Your task to perform on an android device: What's on my calendar tomorrow? Image 0: 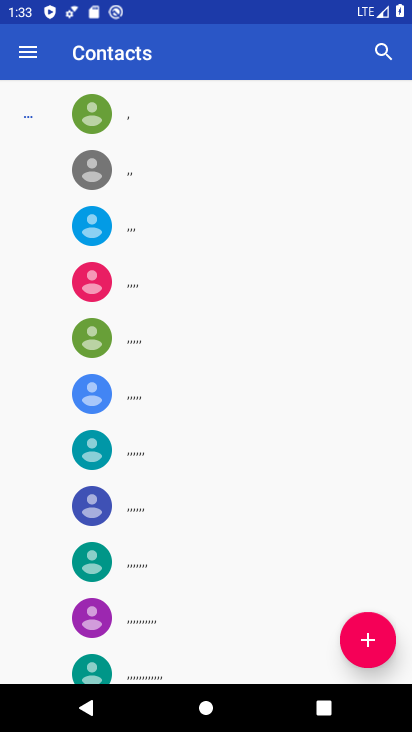
Step 0: press home button
Your task to perform on an android device: What's on my calendar tomorrow? Image 1: 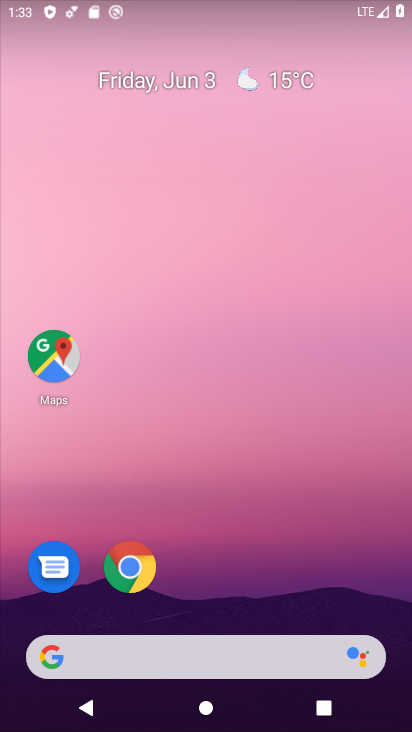
Step 1: click (265, 166)
Your task to perform on an android device: What's on my calendar tomorrow? Image 2: 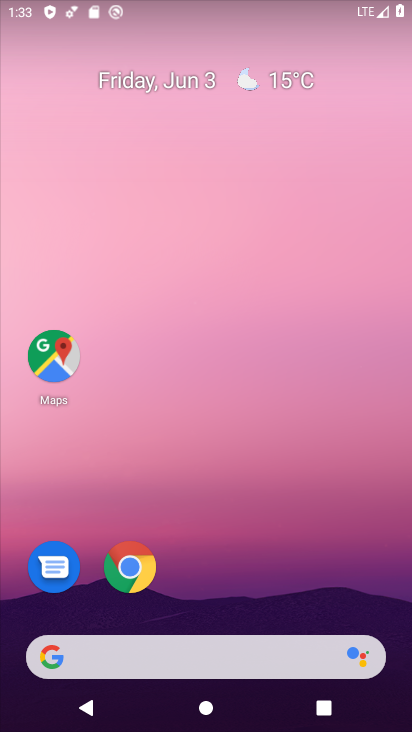
Step 2: drag from (195, 634) to (234, 21)
Your task to perform on an android device: What's on my calendar tomorrow? Image 3: 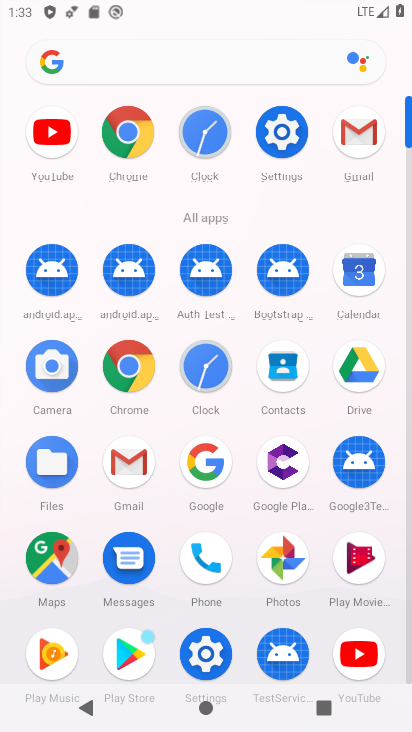
Step 3: click (367, 273)
Your task to perform on an android device: What's on my calendar tomorrow? Image 4: 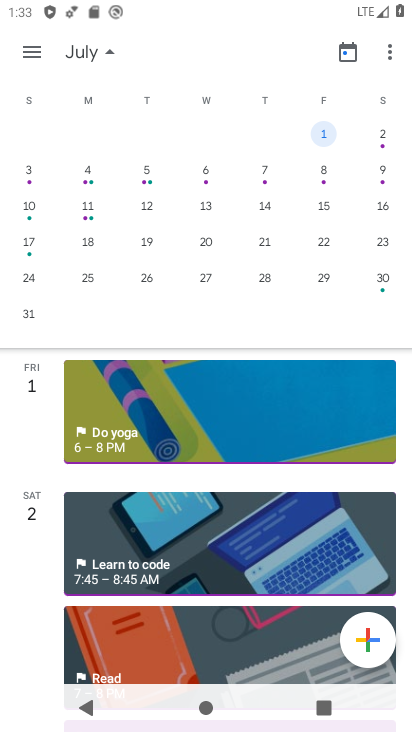
Step 4: click (93, 50)
Your task to perform on an android device: What's on my calendar tomorrow? Image 5: 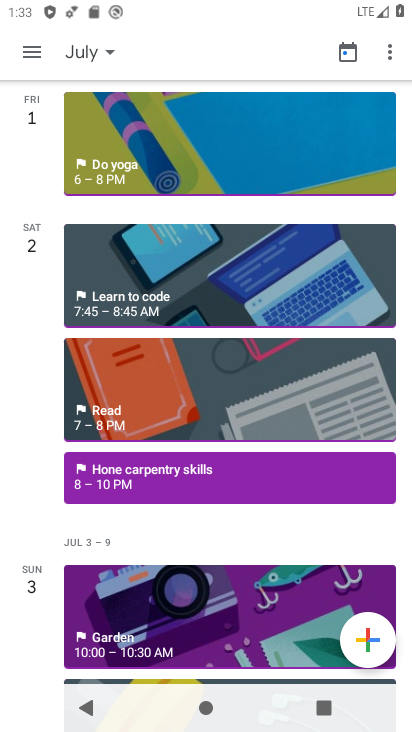
Step 5: click (91, 48)
Your task to perform on an android device: What's on my calendar tomorrow? Image 6: 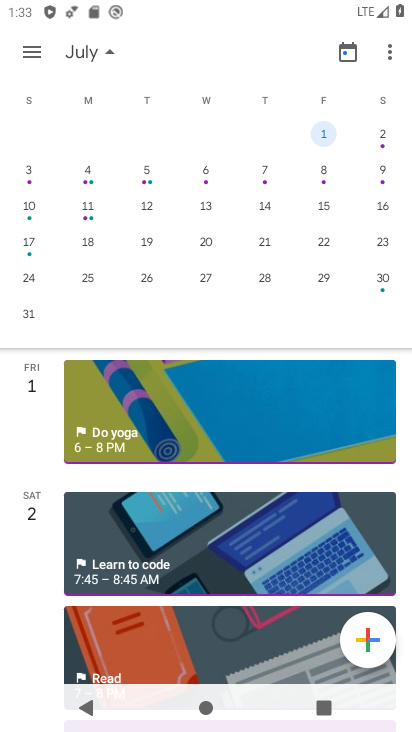
Step 6: drag from (43, 149) to (337, 187)
Your task to perform on an android device: What's on my calendar tomorrow? Image 7: 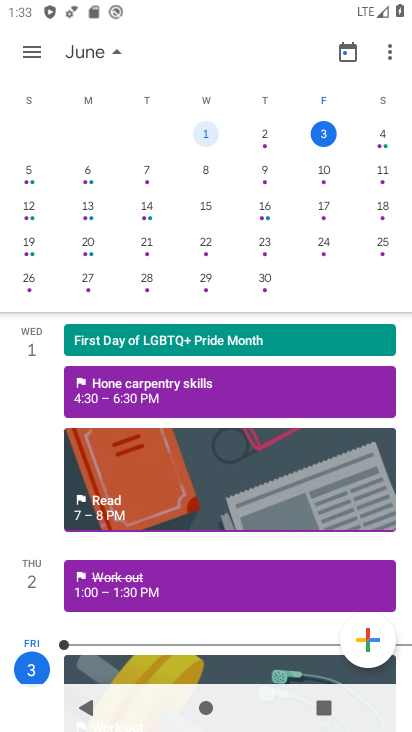
Step 7: click (387, 140)
Your task to perform on an android device: What's on my calendar tomorrow? Image 8: 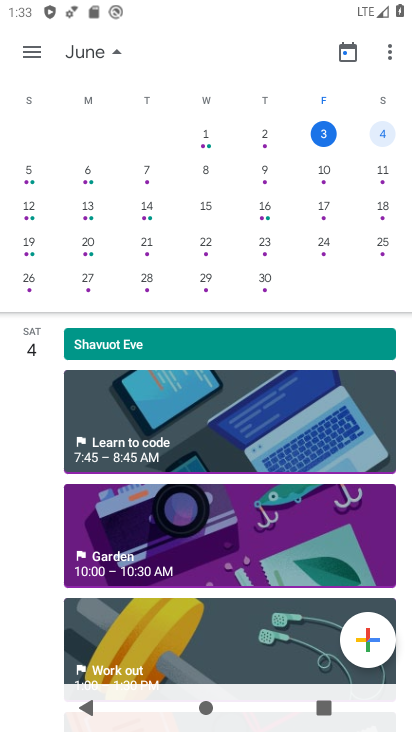
Step 8: click (387, 140)
Your task to perform on an android device: What's on my calendar tomorrow? Image 9: 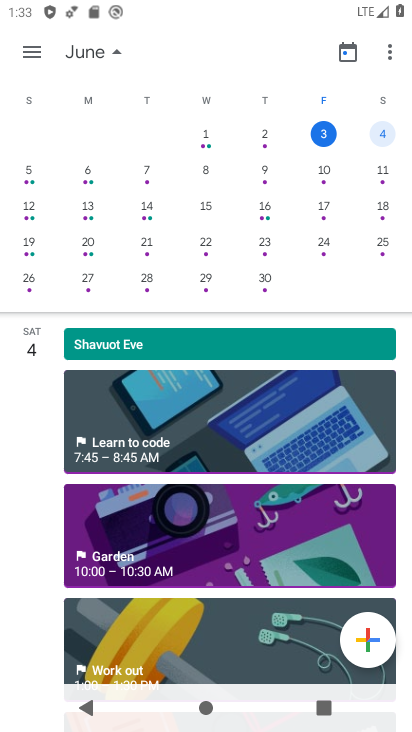
Step 9: click (387, 140)
Your task to perform on an android device: What's on my calendar tomorrow? Image 10: 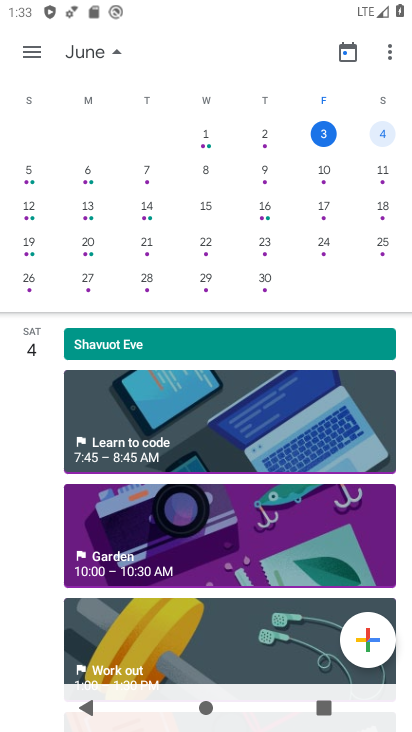
Step 10: click (387, 140)
Your task to perform on an android device: What's on my calendar tomorrow? Image 11: 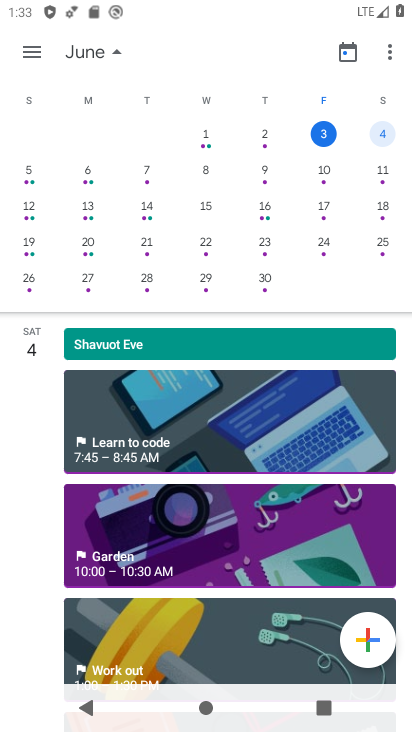
Step 11: task complete